Your task to perform on an android device: toggle pop-ups in chrome Image 0: 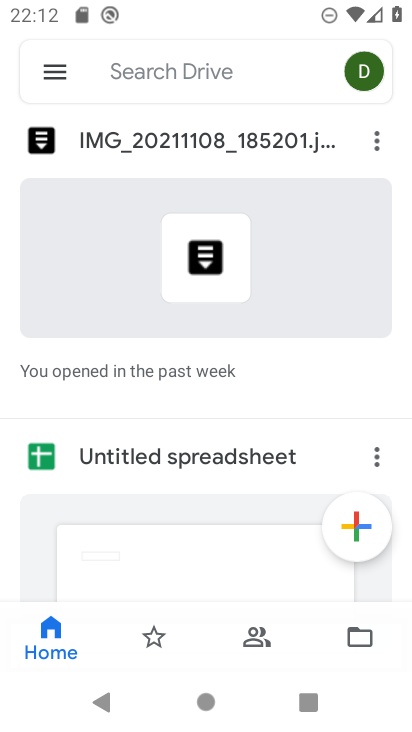
Step 0: press home button
Your task to perform on an android device: toggle pop-ups in chrome Image 1: 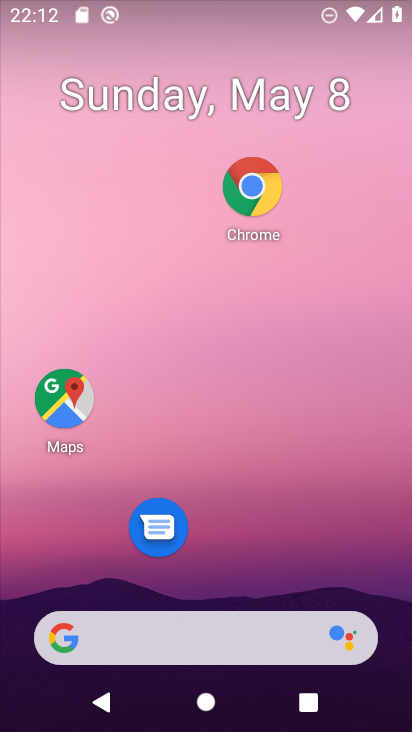
Step 1: drag from (243, 584) to (295, 206)
Your task to perform on an android device: toggle pop-ups in chrome Image 2: 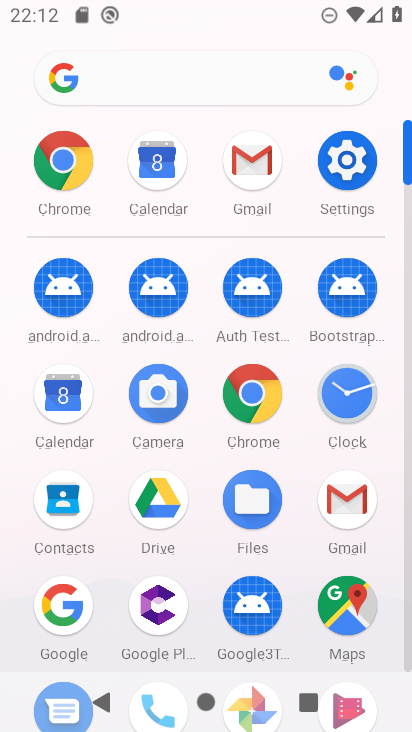
Step 2: click (250, 396)
Your task to perform on an android device: toggle pop-ups in chrome Image 3: 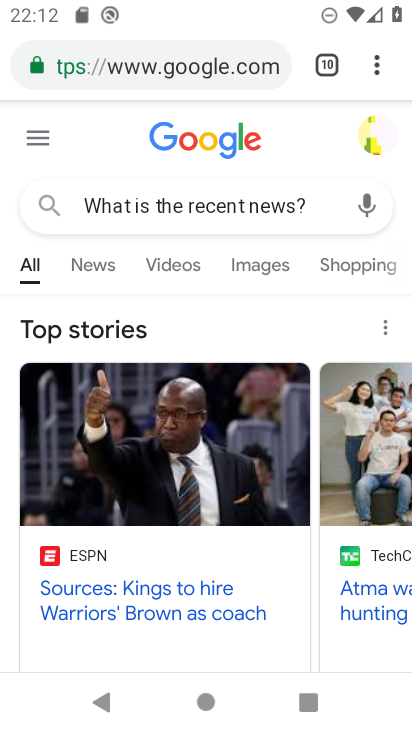
Step 3: click (367, 62)
Your task to perform on an android device: toggle pop-ups in chrome Image 4: 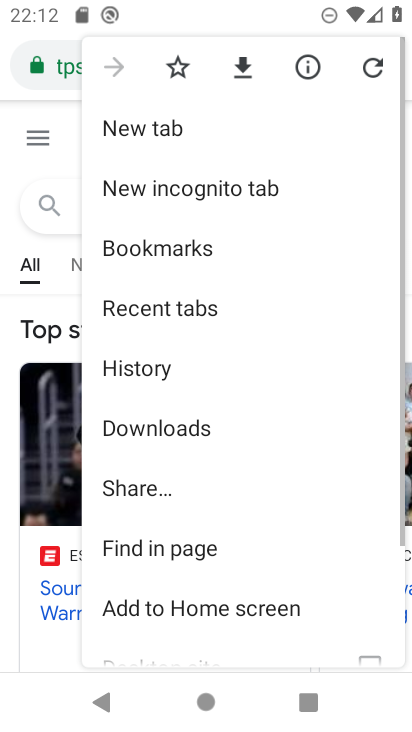
Step 4: drag from (194, 561) to (331, 108)
Your task to perform on an android device: toggle pop-ups in chrome Image 5: 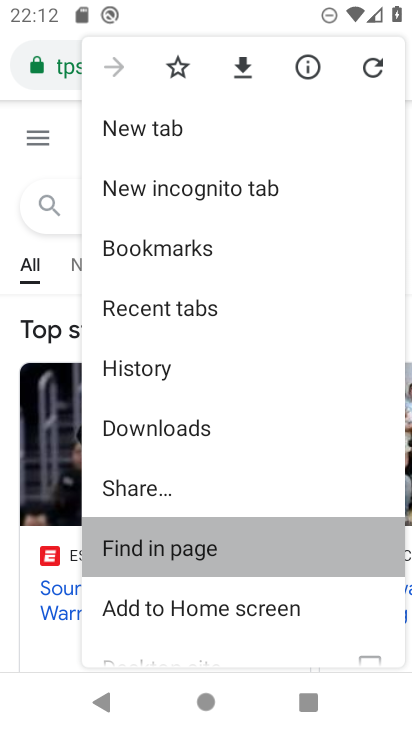
Step 5: drag from (291, 428) to (284, 119)
Your task to perform on an android device: toggle pop-ups in chrome Image 6: 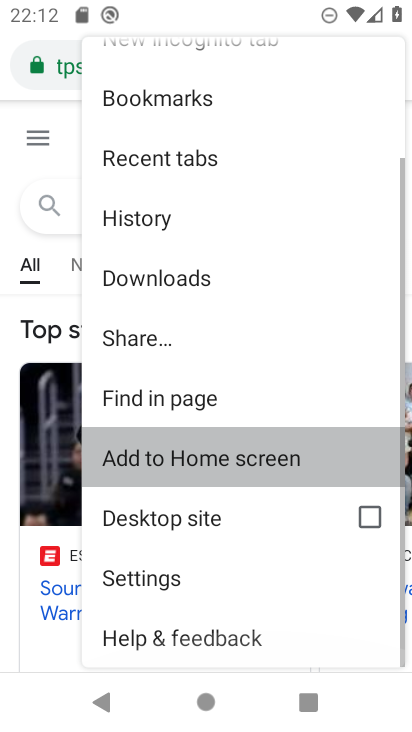
Step 6: drag from (217, 366) to (240, 105)
Your task to perform on an android device: toggle pop-ups in chrome Image 7: 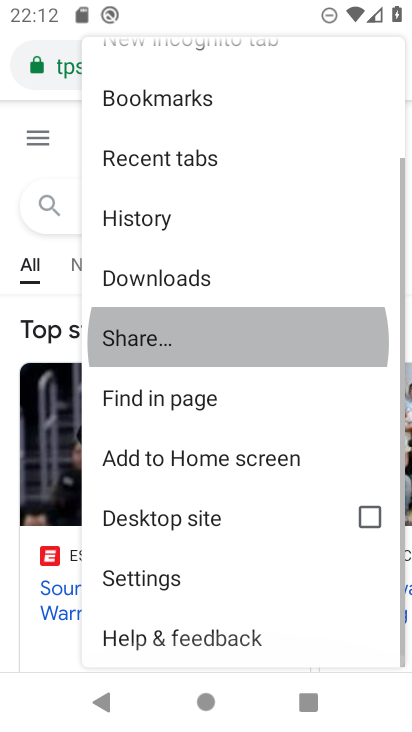
Step 7: drag from (175, 416) to (227, 48)
Your task to perform on an android device: toggle pop-ups in chrome Image 8: 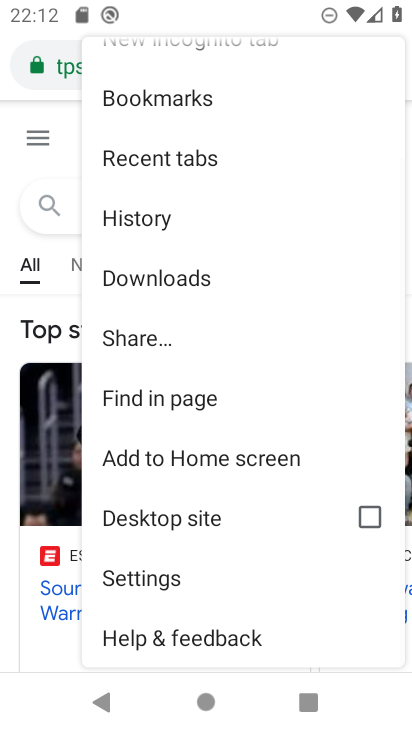
Step 8: click (185, 574)
Your task to perform on an android device: toggle pop-ups in chrome Image 9: 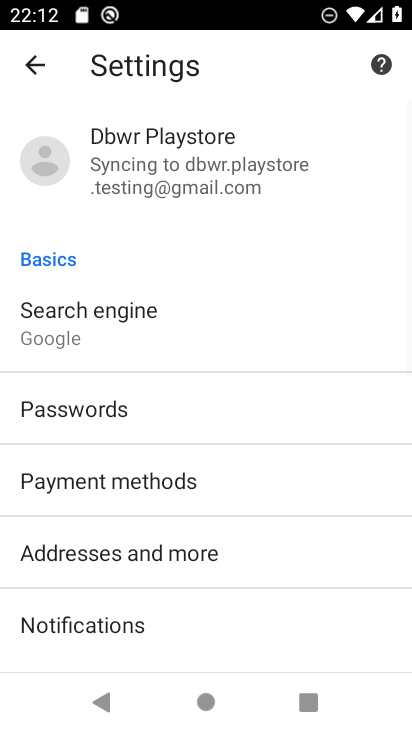
Step 9: drag from (242, 617) to (334, 92)
Your task to perform on an android device: toggle pop-ups in chrome Image 10: 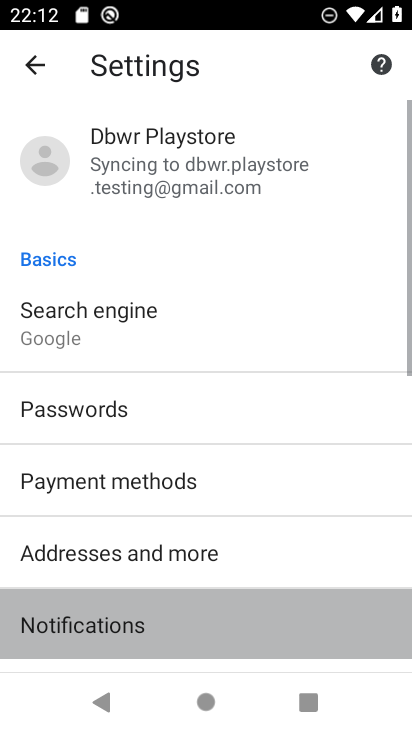
Step 10: drag from (244, 449) to (303, 78)
Your task to perform on an android device: toggle pop-ups in chrome Image 11: 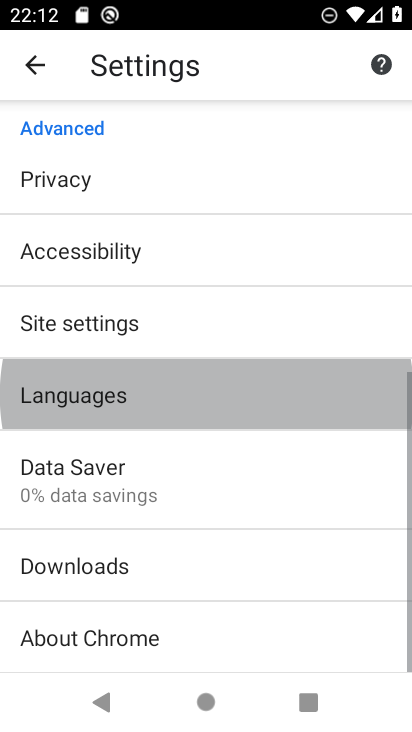
Step 11: drag from (181, 516) to (252, 173)
Your task to perform on an android device: toggle pop-ups in chrome Image 12: 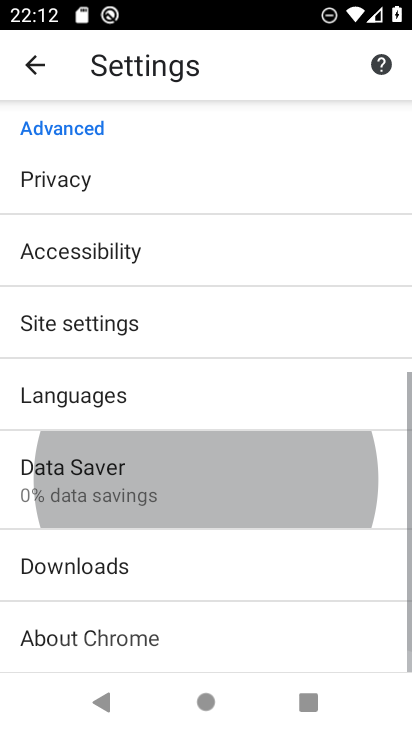
Step 12: drag from (242, 535) to (298, 216)
Your task to perform on an android device: toggle pop-ups in chrome Image 13: 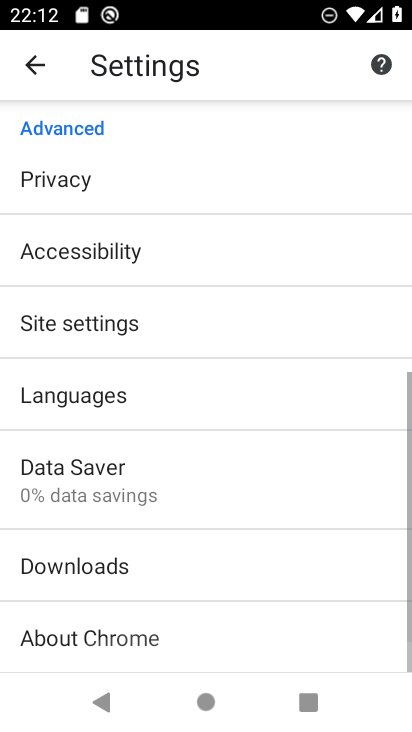
Step 13: drag from (258, 561) to (292, 218)
Your task to perform on an android device: toggle pop-ups in chrome Image 14: 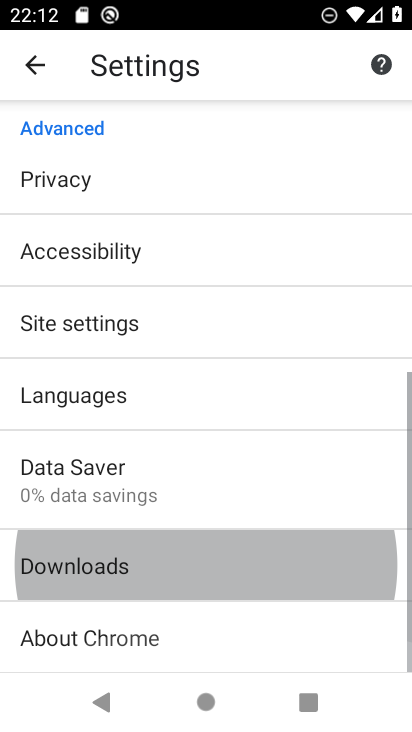
Step 14: drag from (239, 546) to (255, 198)
Your task to perform on an android device: toggle pop-ups in chrome Image 15: 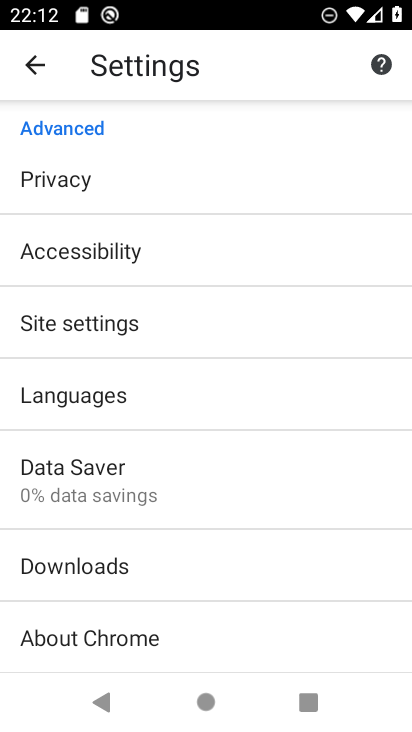
Step 15: click (149, 318)
Your task to perform on an android device: toggle pop-ups in chrome Image 16: 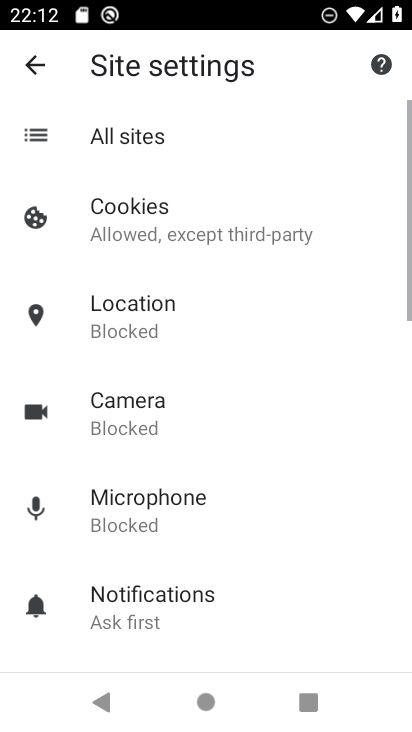
Step 16: drag from (220, 604) to (343, 99)
Your task to perform on an android device: toggle pop-ups in chrome Image 17: 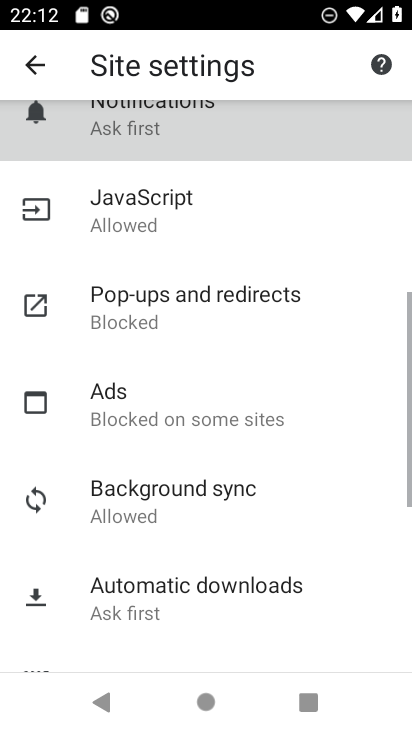
Step 17: drag from (215, 529) to (258, 244)
Your task to perform on an android device: toggle pop-ups in chrome Image 18: 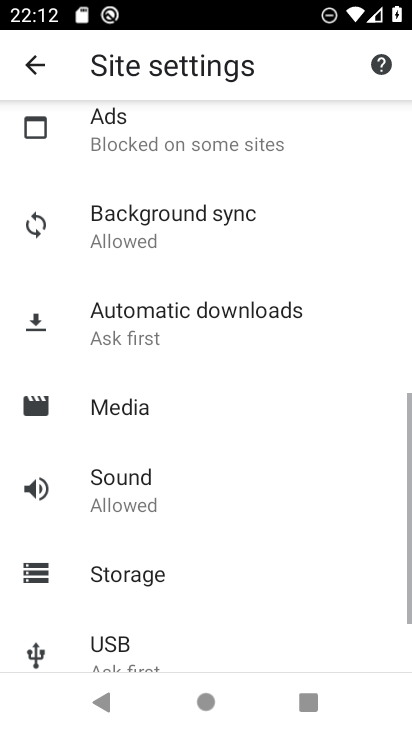
Step 18: drag from (235, 437) to (328, 42)
Your task to perform on an android device: toggle pop-ups in chrome Image 19: 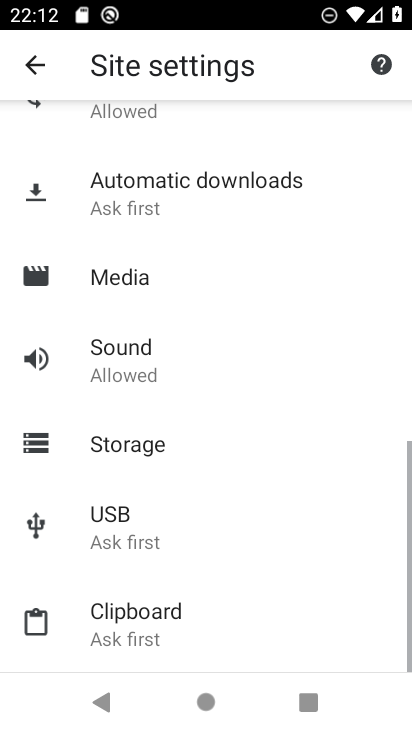
Step 19: drag from (237, 429) to (264, 235)
Your task to perform on an android device: toggle pop-ups in chrome Image 20: 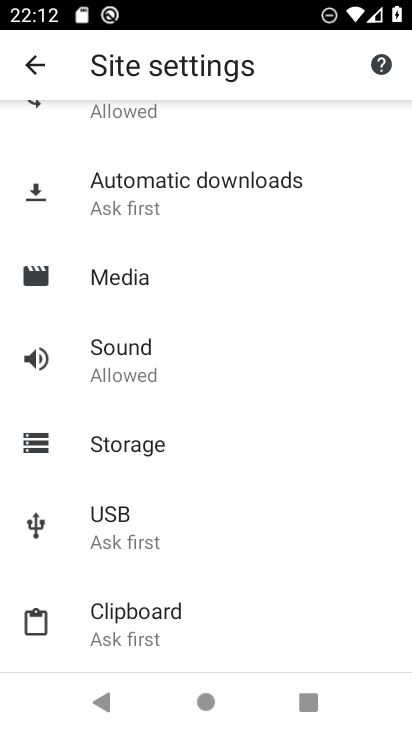
Step 20: drag from (178, 173) to (164, 497)
Your task to perform on an android device: toggle pop-ups in chrome Image 21: 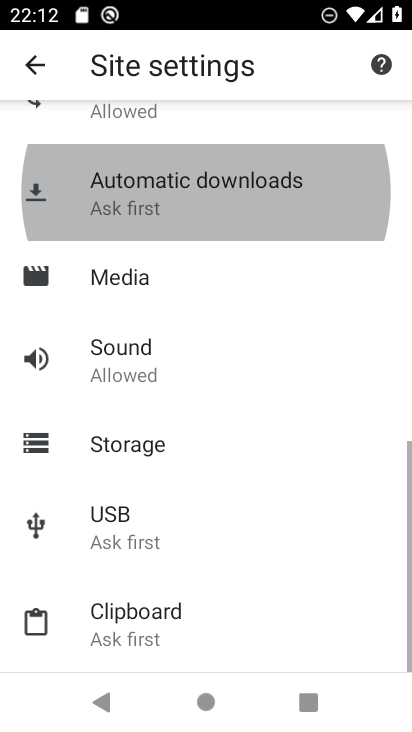
Step 21: drag from (201, 140) to (211, 530)
Your task to perform on an android device: toggle pop-ups in chrome Image 22: 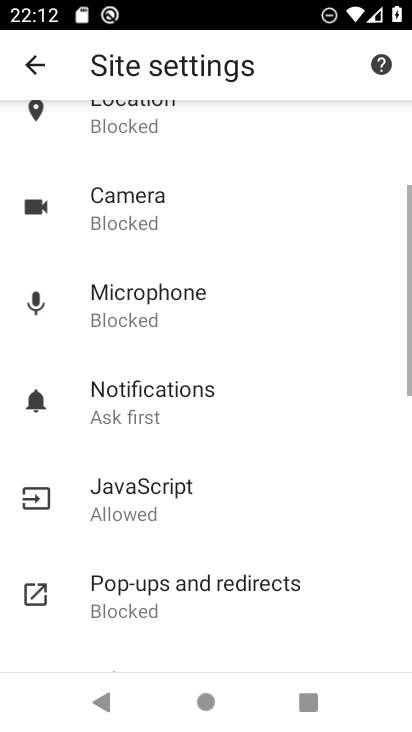
Step 22: drag from (236, 209) to (208, 499)
Your task to perform on an android device: toggle pop-ups in chrome Image 23: 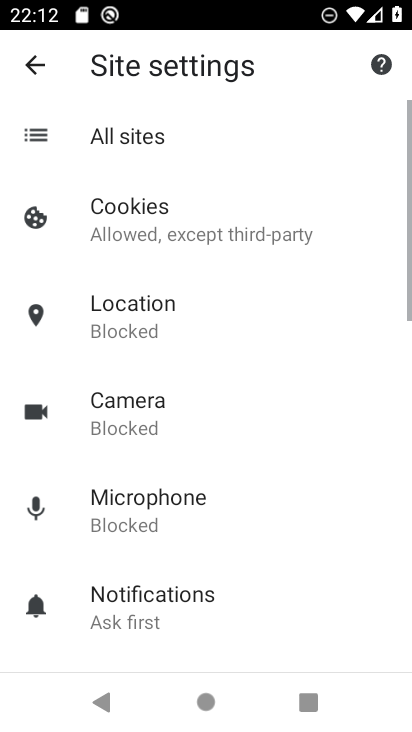
Step 23: click (169, 571)
Your task to perform on an android device: toggle pop-ups in chrome Image 24: 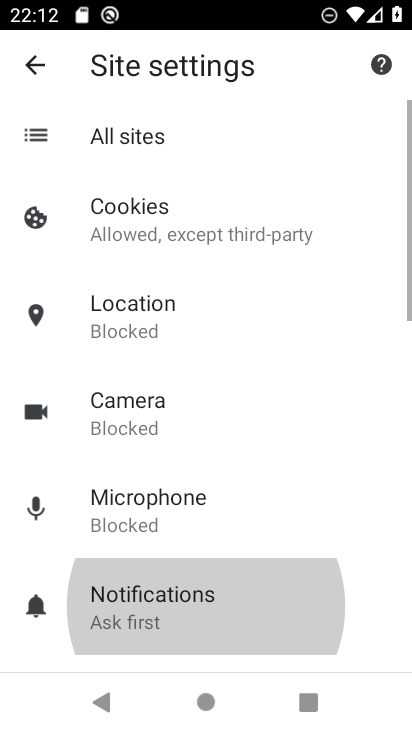
Step 24: drag from (169, 571) to (289, 133)
Your task to perform on an android device: toggle pop-ups in chrome Image 25: 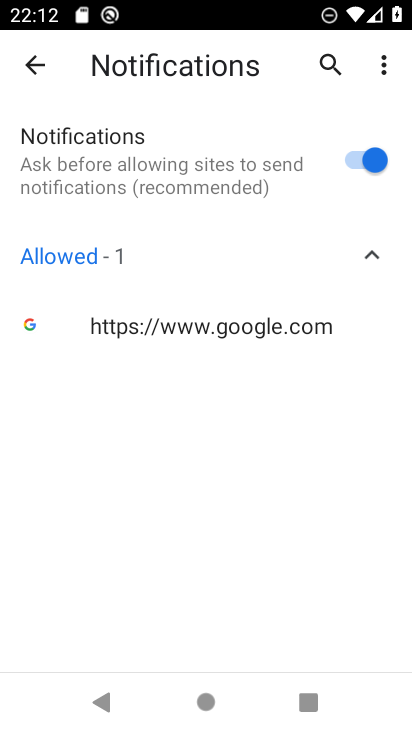
Step 25: click (32, 60)
Your task to perform on an android device: toggle pop-ups in chrome Image 26: 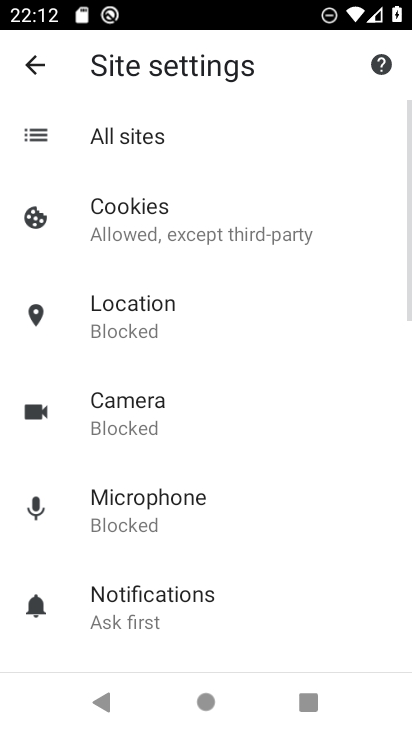
Step 26: drag from (273, 569) to (354, 125)
Your task to perform on an android device: toggle pop-ups in chrome Image 27: 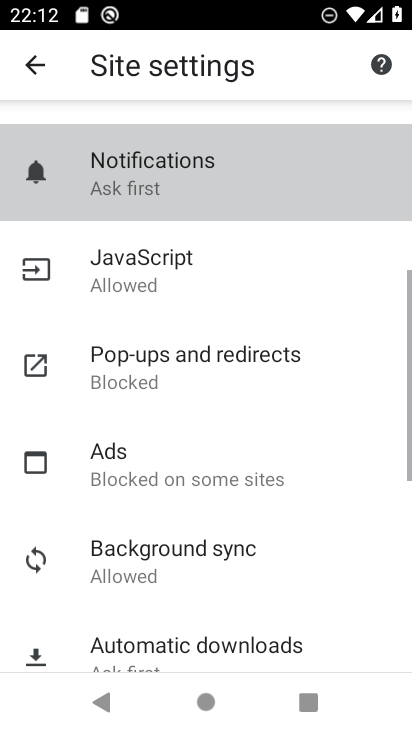
Step 27: drag from (265, 519) to (296, 292)
Your task to perform on an android device: toggle pop-ups in chrome Image 28: 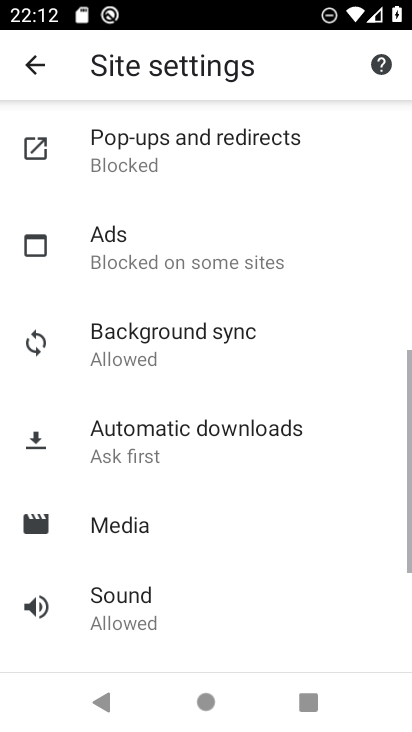
Step 28: drag from (243, 484) to (292, 244)
Your task to perform on an android device: toggle pop-ups in chrome Image 29: 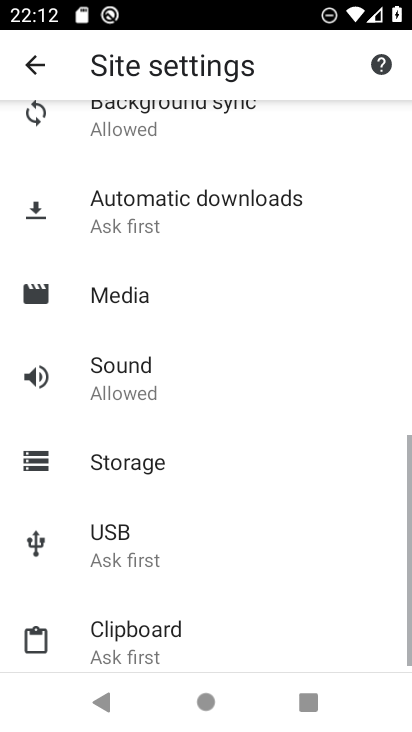
Step 29: drag from (240, 224) to (238, 666)
Your task to perform on an android device: toggle pop-ups in chrome Image 30: 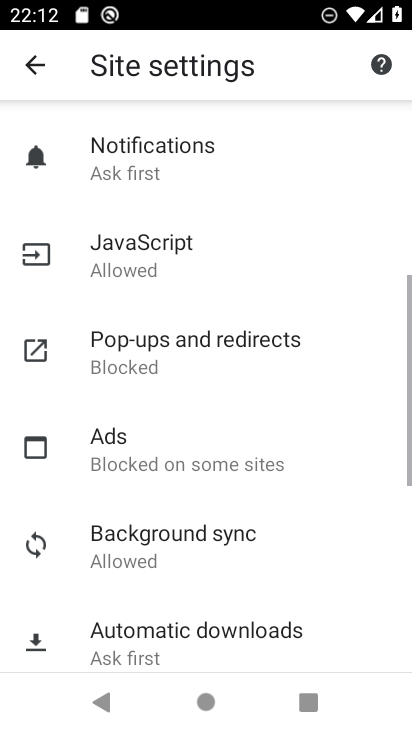
Step 30: drag from (219, 350) to (224, 648)
Your task to perform on an android device: toggle pop-ups in chrome Image 31: 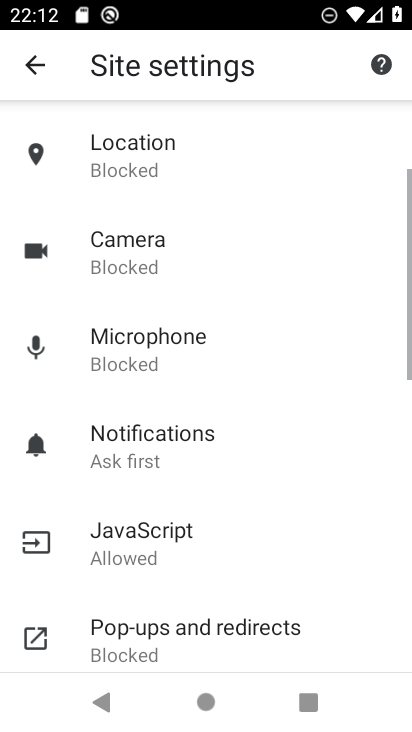
Step 31: click (209, 623)
Your task to perform on an android device: toggle pop-ups in chrome Image 32: 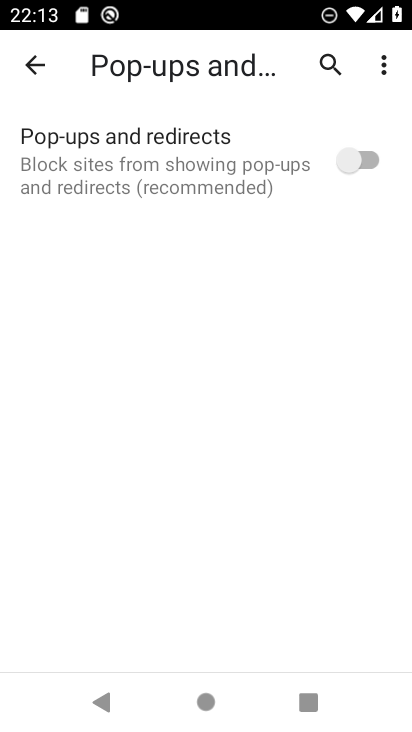
Step 32: click (338, 156)
Your task to perform on an android device: toggle pop-ups in chrome Image 33: 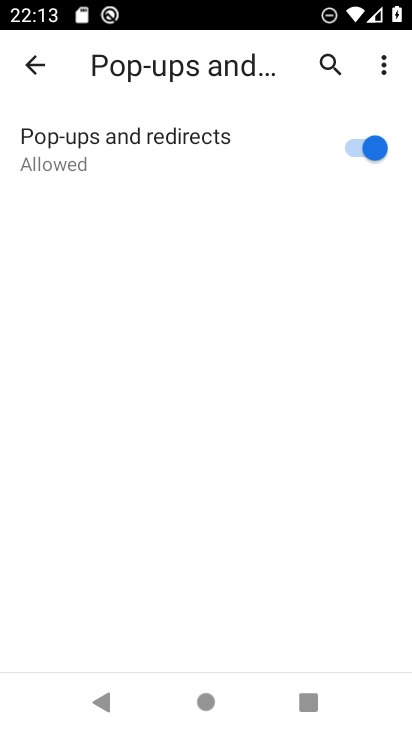
Step 33: task complete